Your task to perform on an android device: What's on my calendar tomorrow? Image 0: 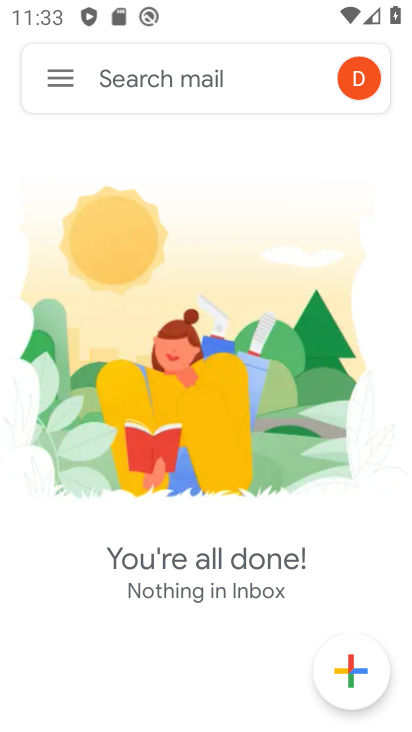
Step 0: press home button
Your task to perform on an android device: What's on my calendar tomorrow? Image 1: 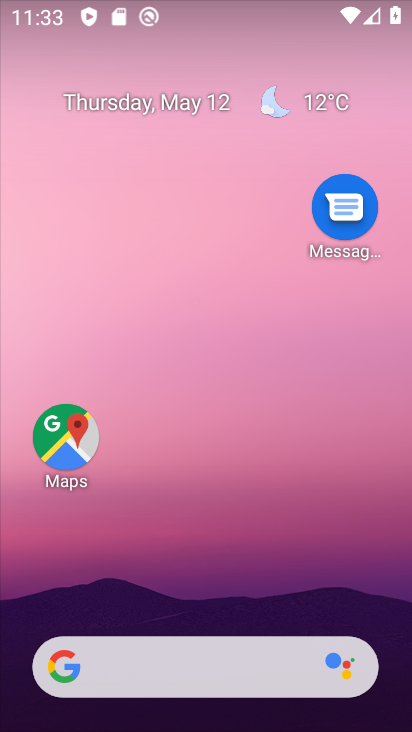
Step 1: drag from (274, 570) to (410, 442)
Your task to perform on an android device: What's on my calendar tomorrow? Image 2: 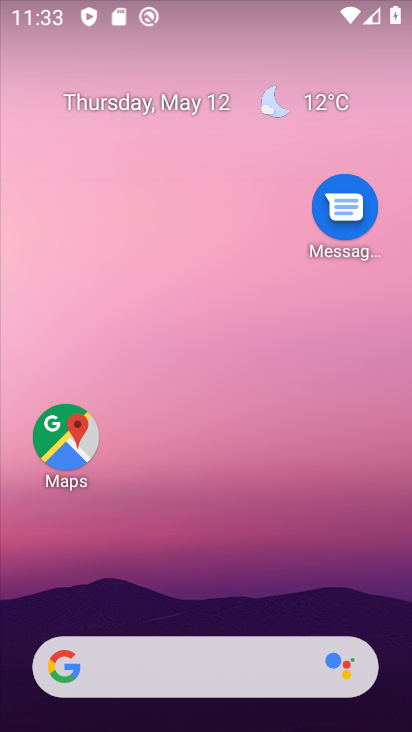
Step 2: drag from (212, 519) to (258, 3)
Your task to perform on an android device: What's on my calendar tomorrow? Image 3: 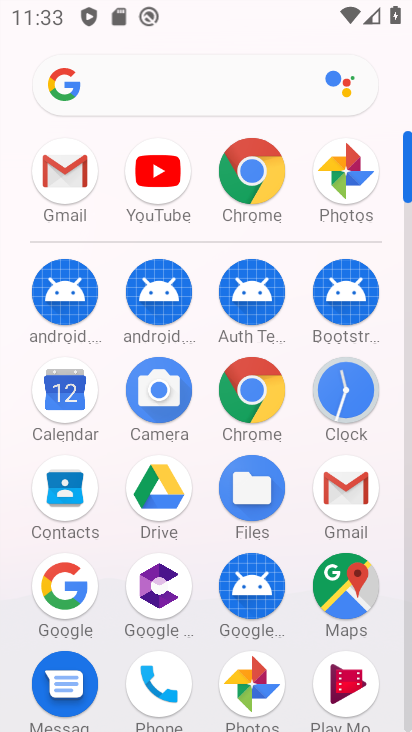
Step 3: click (72, 398)
Your task to perform on an android device: What's on my calendar tomorrow? Image 4: 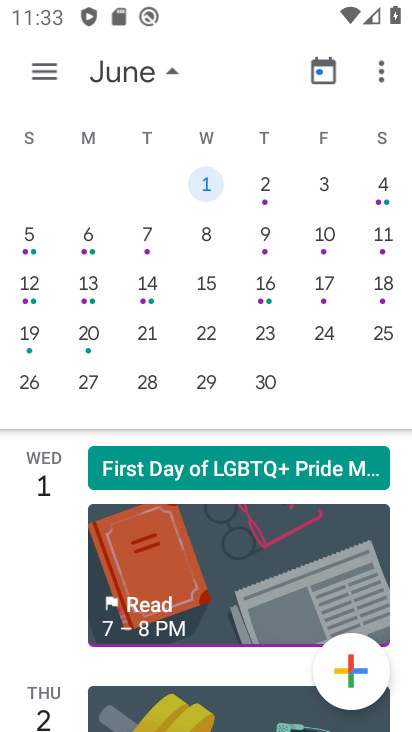
Step 4: drag from (27, 193) to (409, 272)
Your task to perform on an android device: What's on my calendar tomorrow? Image 5: 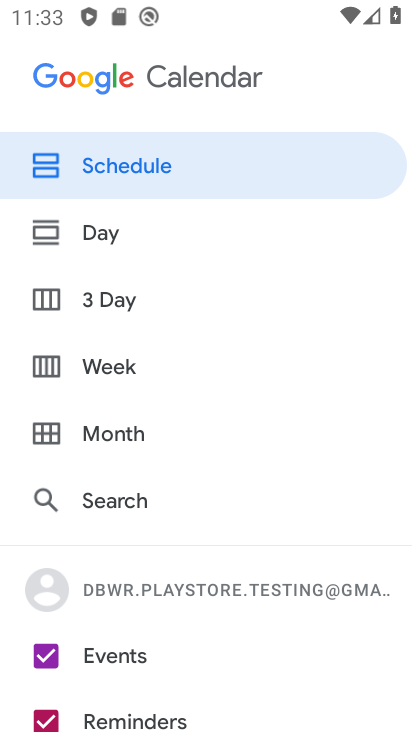
Step 5: drag from (385, 284) to (3, 447)
Your task to perform on an android device: What's on my calendar tomorrow? Image 6: 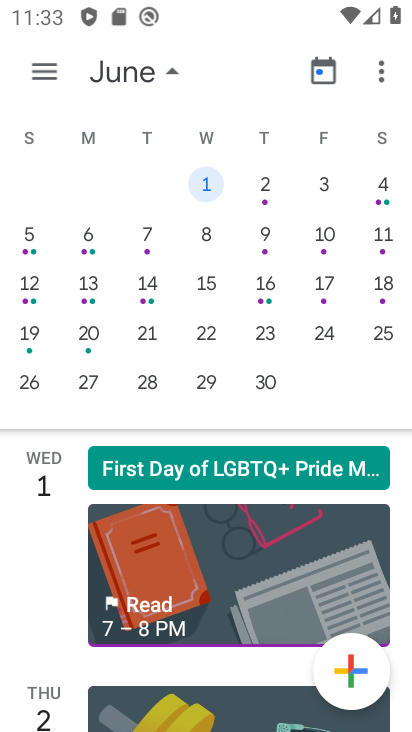
Step 6: drag from (247, 268) to (401, 251)
Your task to perform on an android device: What's on my calendar tomorrow? Image 7: 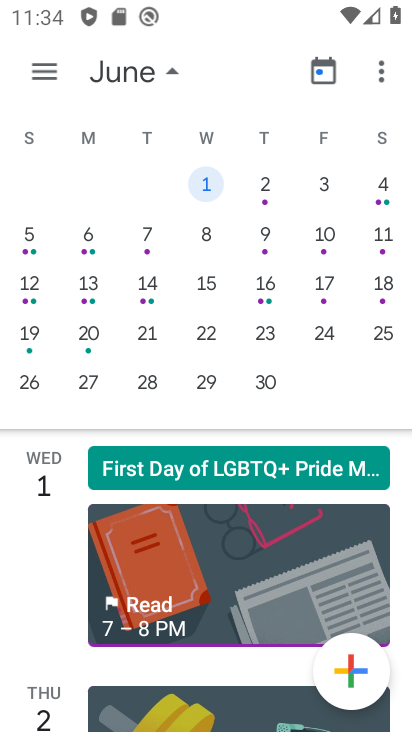
Step 7: drag from (147, 197) to (410, 447)
Your task to perform on an android device: What's on my calendar tomorrow? Image 8: 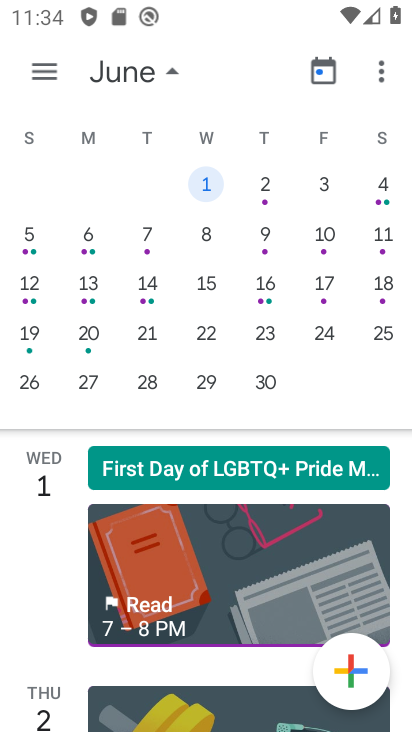
Step 8: drag from (47, 200) to (405, 245)
Your task to perform on an android device: What's on my calendar tomorrow? Image 9: 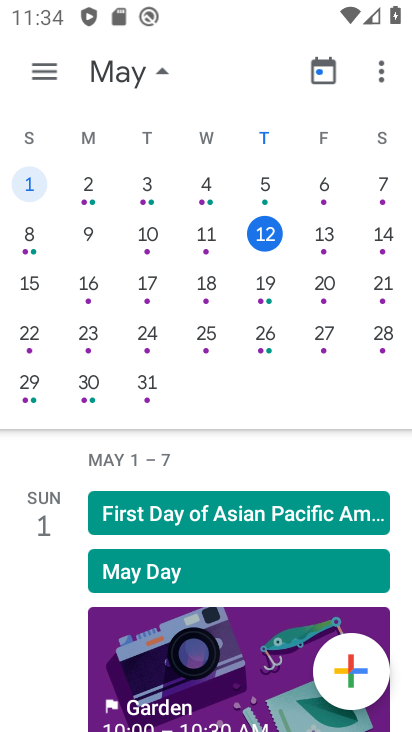
Step 9: click (393, 235)
Your task to perform on an android device: What's on my calendar tomorrow? Image 10: 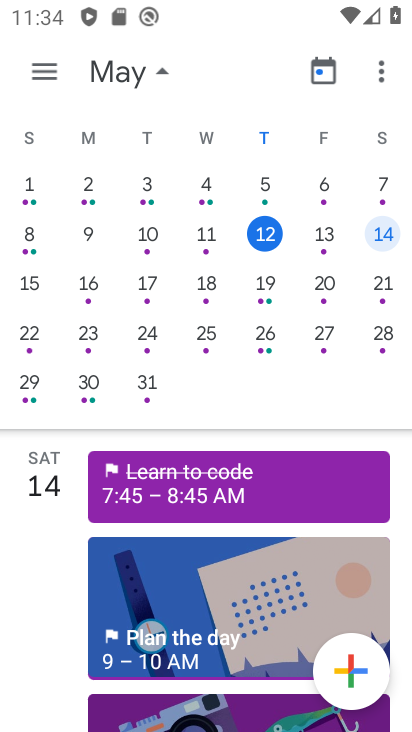
Step 10: click (163, 67)
Your task to perform on an android device: What's on my calendar tomorrow? Image 11: 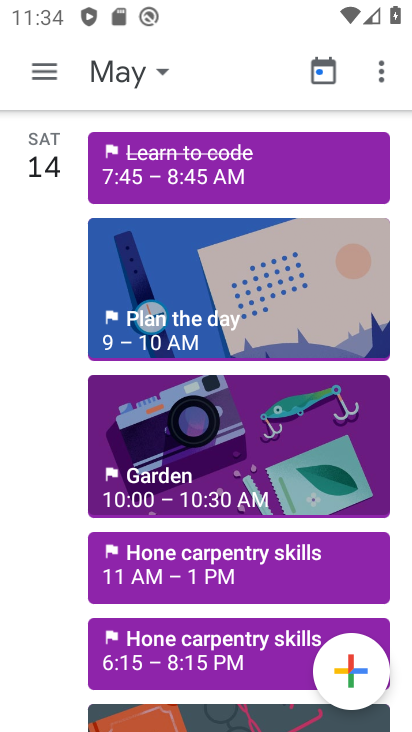
Step 11: task complete